Your task to perform on an android device: move a message to another label in the gmail app Image 0: 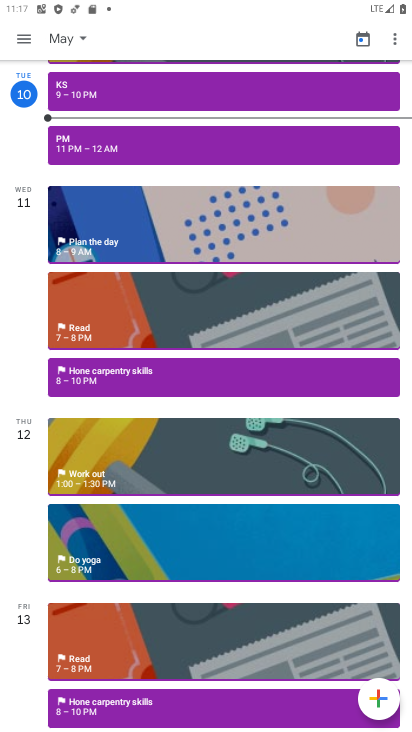
Step 0: press home button
Your task to perform on an android device: move a message to another label in the gmail app Image 1: 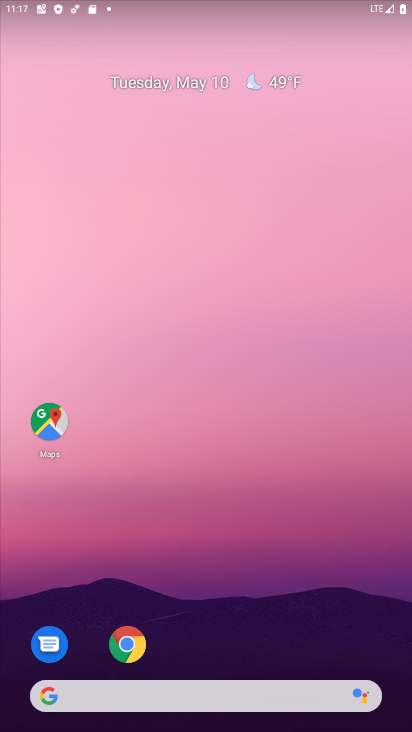
Step 1: drag from (191, 632) to (267, 183)
Your task to perform on an android device: move a message to another label in the gmail app Image 2: 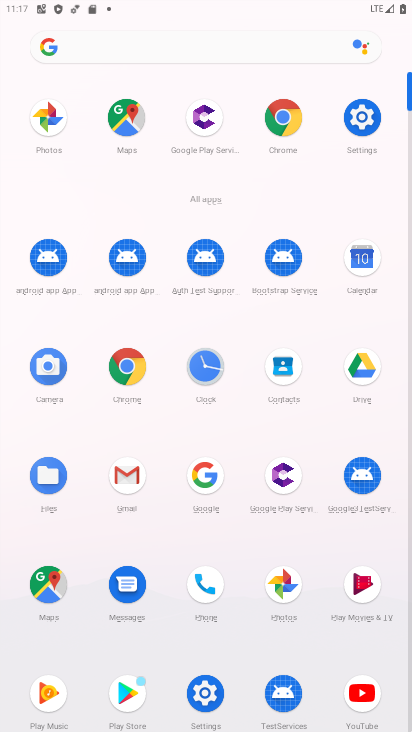
Step 2: click (122, 467)
Your task to perform on an android device: move a message to another label in the gmail app Image 3: 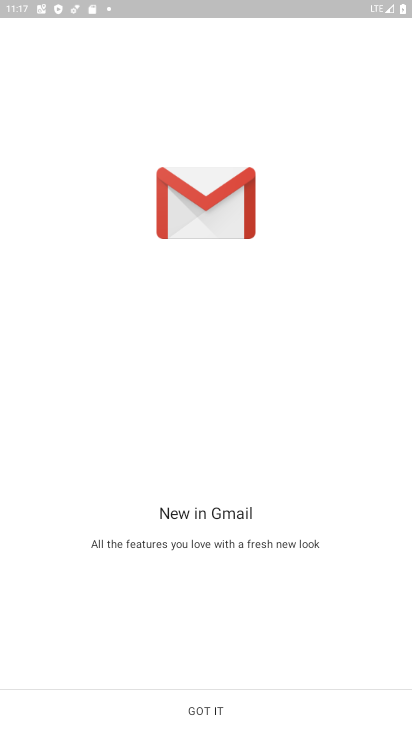
Step 3: click (220, 705)
Your task to perform on an android device: move a message to another label in the gmail app Image 4: 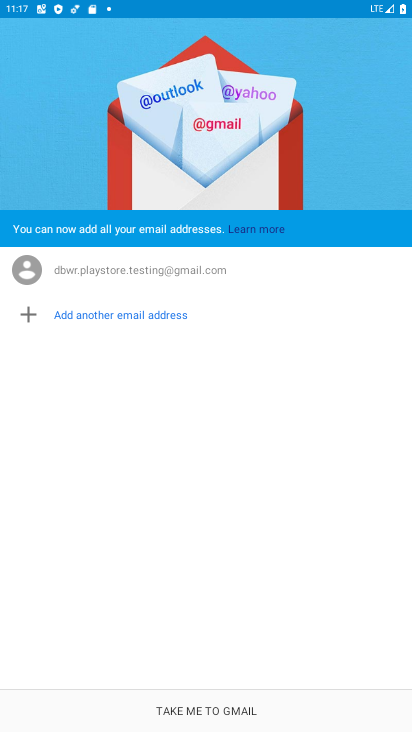
Step 4: click (220, 705)
Your task to perform on an android device: move a message to another label in the gmail app Image 5: 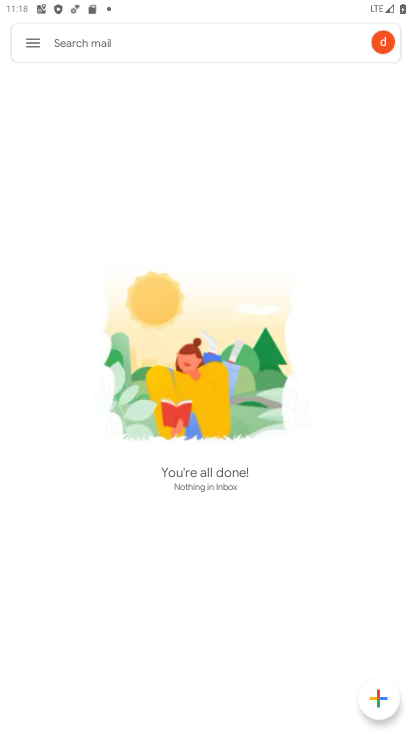
Step 5: click (38, 51)
Your task to perform on an android device: move a message to another label in the gmail app Image 6: 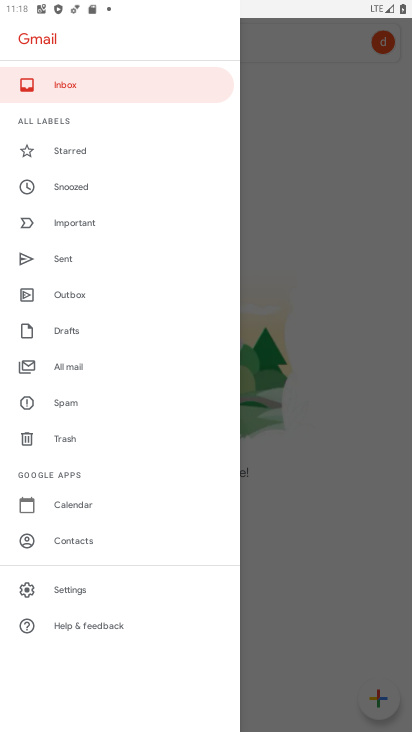
Step 6: click (90, 355)
Your task to perform on an android device: move a message to another label in the gmail app Image 7: 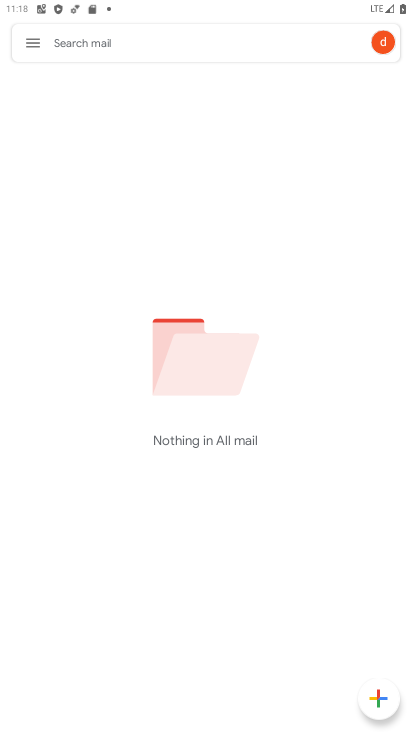
Step 7: task complete